Your task to perform on an android device: toggle data saver in the chrome app Image 0: 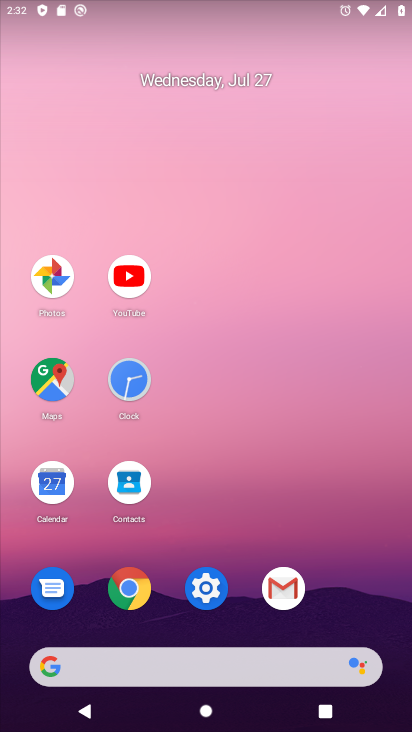
Step 0: click (130, 589)
Your task to perform on an android device: toggle data saver in the chrome app Image 1: 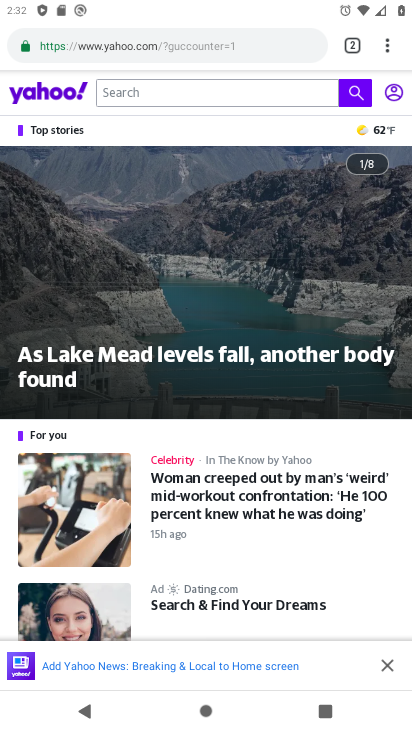
Step 1: click (383, 43)
Your task to perform on an android device: toggle data saver in the chrome app Image 2: 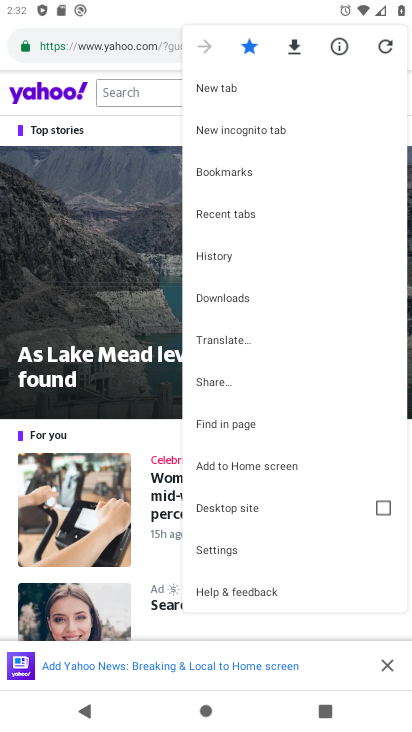
Step 2: click (216, 552)
Your task to perform on an android device: toggle data saver in the chrome app Image 3: 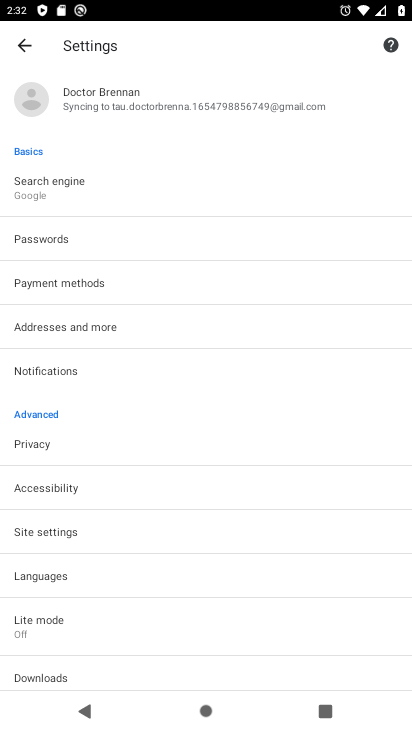
Step 3: click (42, 623)
Your task to perform on an android device: toggle data saver in the chrome app Image 4: 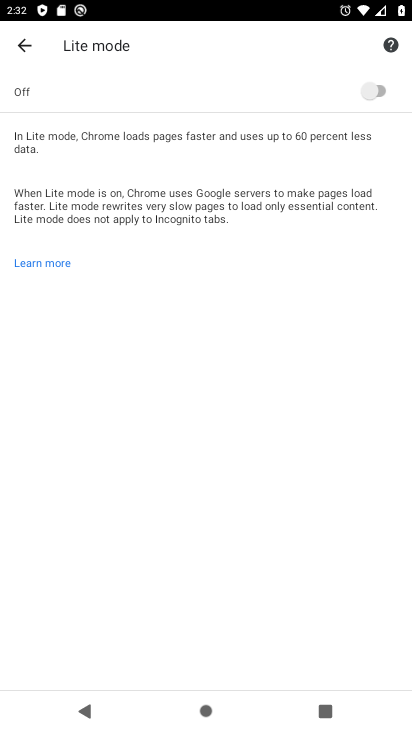
Step 4: click (364, 98)
Your task to perform on an android device: toggle data saver in the chrome app Image 5: 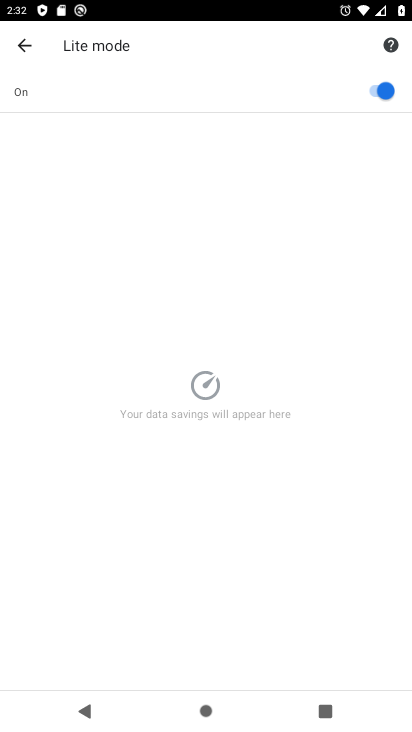
Step 5: task complete